Your task to perform on an android device: manage bookmarks in the chrome app Image 0: 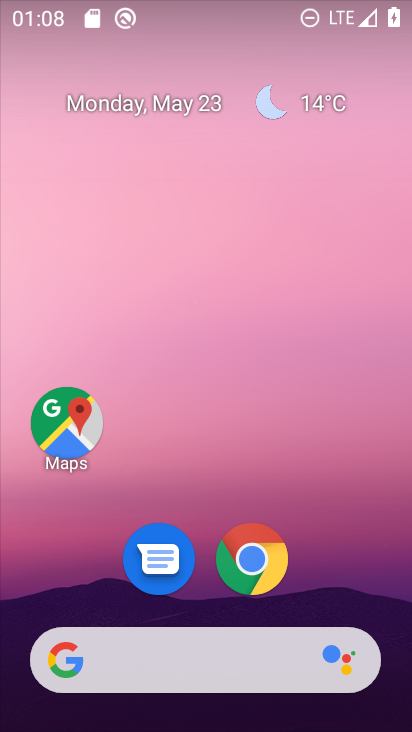
Step 0: click (255, 564)
Your task to perform on an android device: manage bookmarks in the chrome app Image 1: 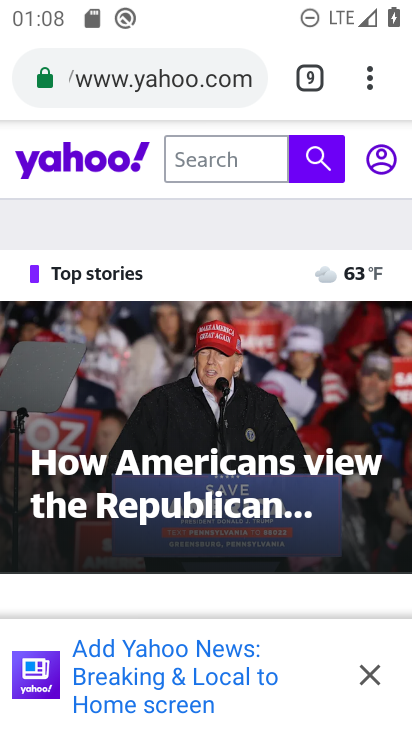
Step 1: click (368, 80)
Your task to perform on an android device: manage bookmarks in the chrome app Image 2: 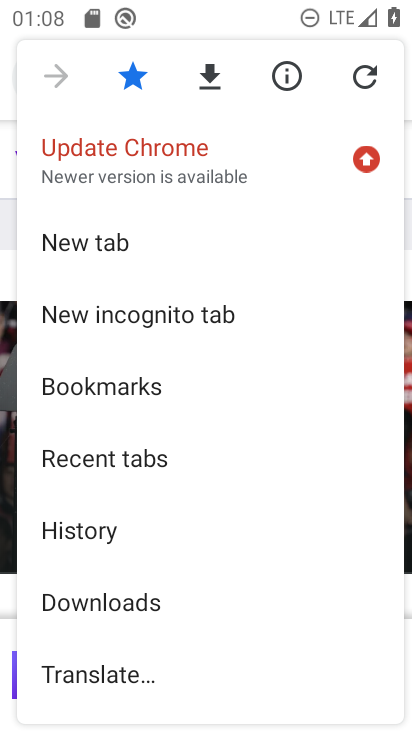
Step 2: click (140, 386)
Your task to perform on an android device: manage bookmarks in the chrome app Image 3: 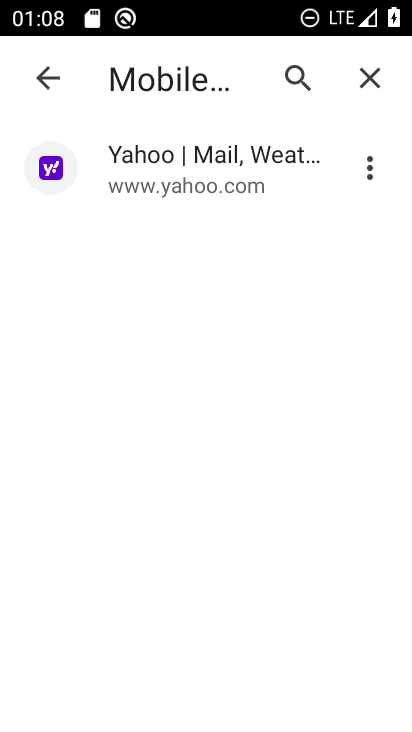
Step 3: click (373, 166)
Your task to perform on an android device: manage bookmarks in the chrome app Image 4: 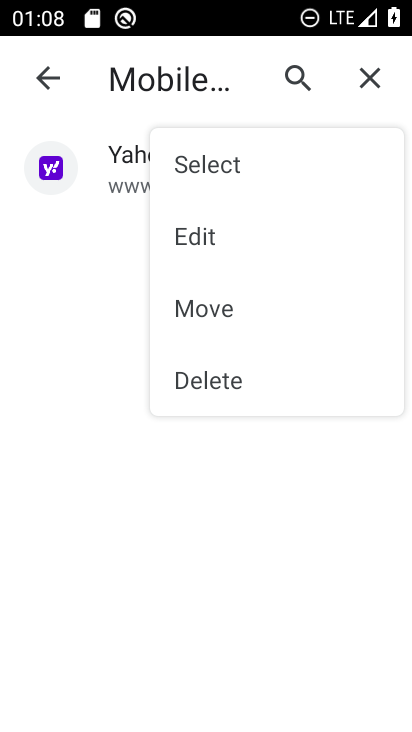
Step 4: click (190, 297)
Your task to perform on an android device: manage bookmarks in the chrome app Image 5: 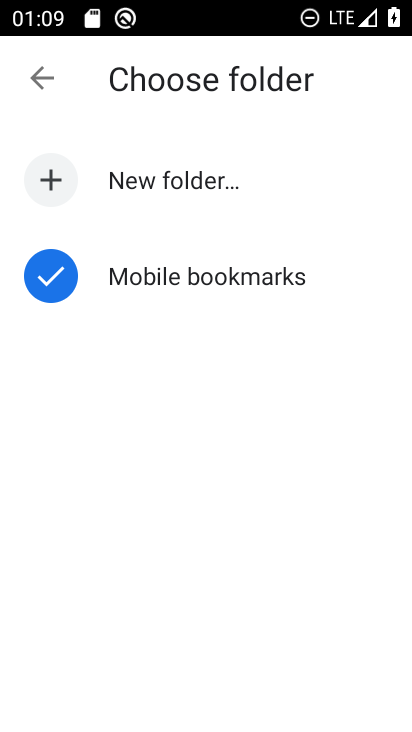
Step 5: click (130, 174)
Your task to perform on an android device: manage bookmarks in the chrome app Image 6: 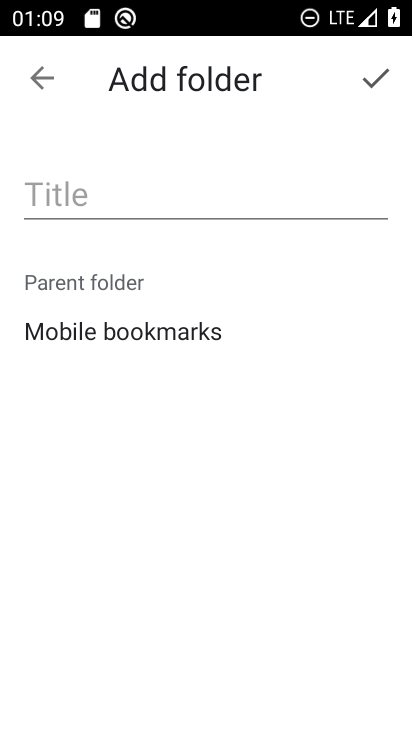
Step 6: click (120, 196)
Your task to perform on an android device: manage bookmarks in the chrome app Image 7: 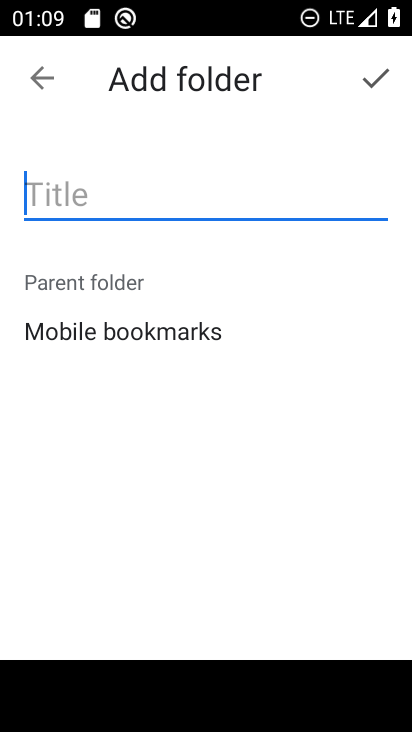
Step 7: type "my folder"
Your task to perform on an android device: manage bookmarks in the chrome app Image 8: 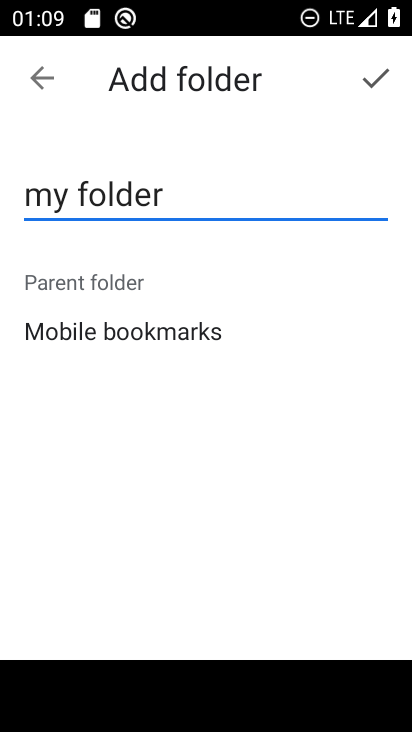
Step 8: click (371, 83)
Your task to perform on an android device: manage bookmarks in the chrome app Image 9: 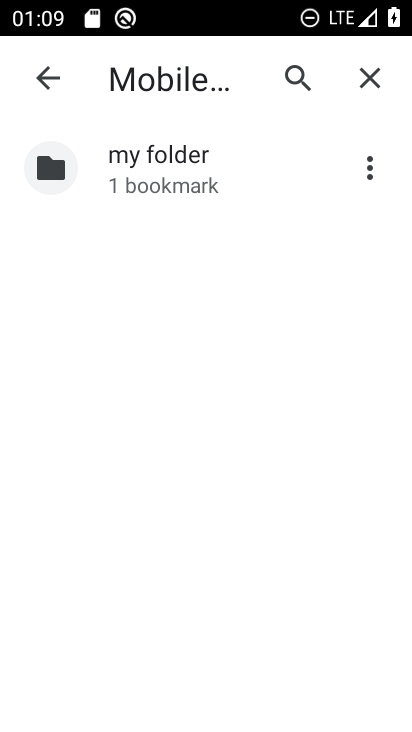
Step 9: task complete